Your task to perform on an android device: Open calendar and show me the third week of next month Image 0: 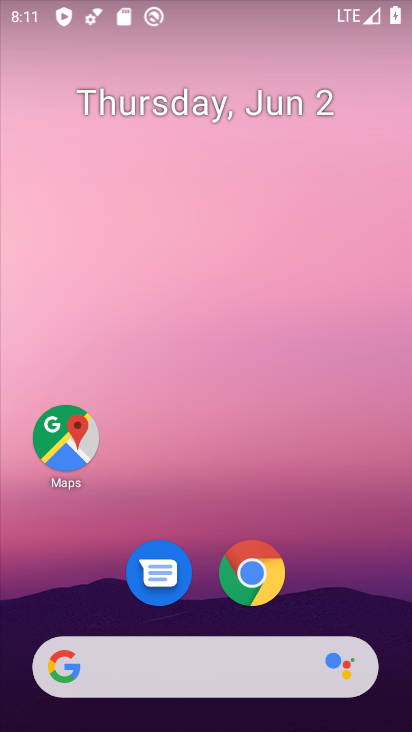
Step 0: drag from (399, 525) to (410, 100)
Your task to perform on an android device: Open calendar and show me the third week of next month Image 1: 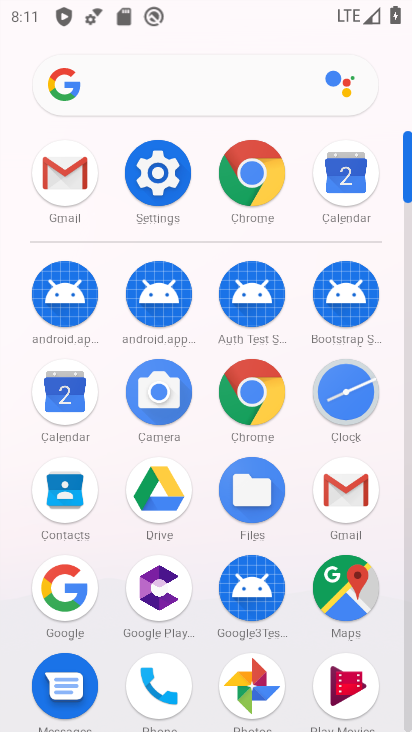
Step 1: click (65, 392)
Your task to perform on an android device: Open calendar and show me the third week of next month Image 2: 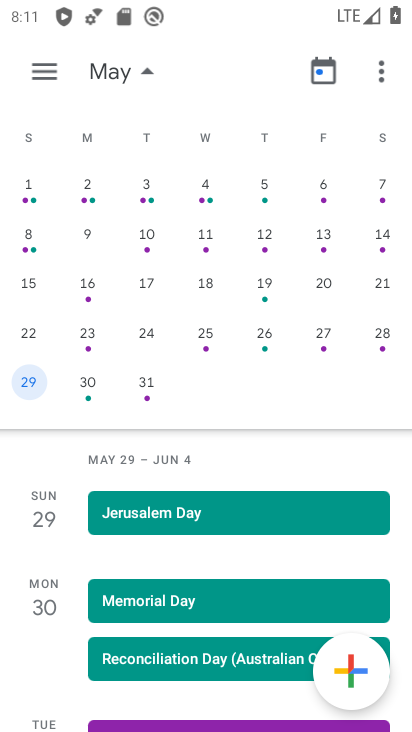
Step 2: drag from (334, 311) to (5, 219)
Your task to perform on an android device: Open calendar and show me the third week of next month Image 3: 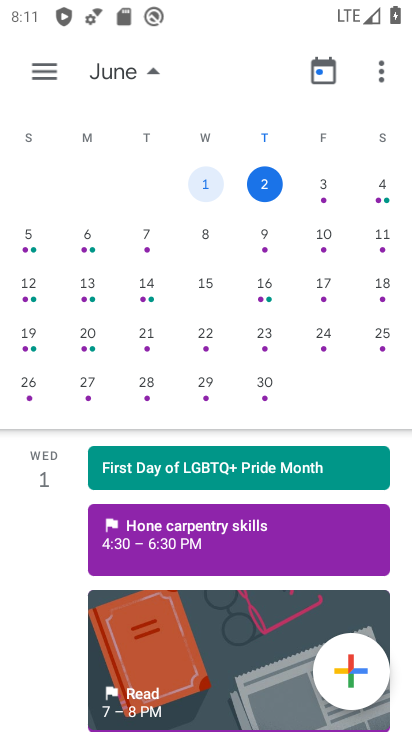
Step 3: click (138, 335)
Your task to perform on an android device: Open calendar and show me the third week of next month Image 4: 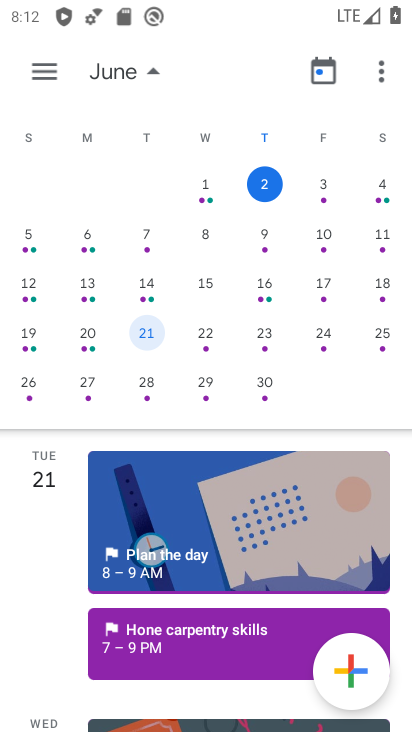
Step 4: task complete